Your task to perform on an android device: install app "Fetch Rewards" Image 0: 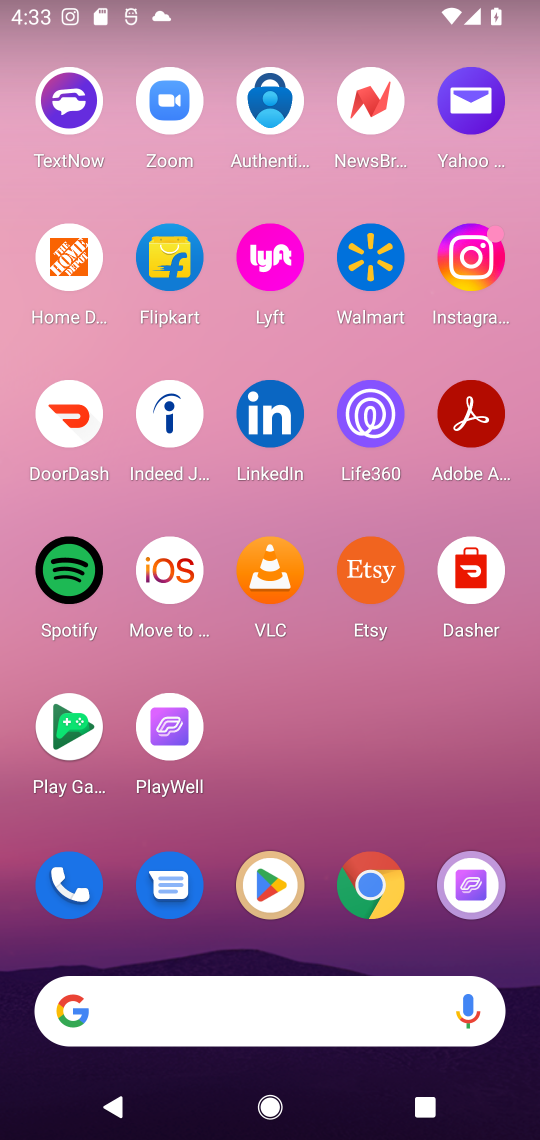
Step 0: click (266, 881)
Your task to perform on an android device: install app "Fetch Rewards" Image 1: 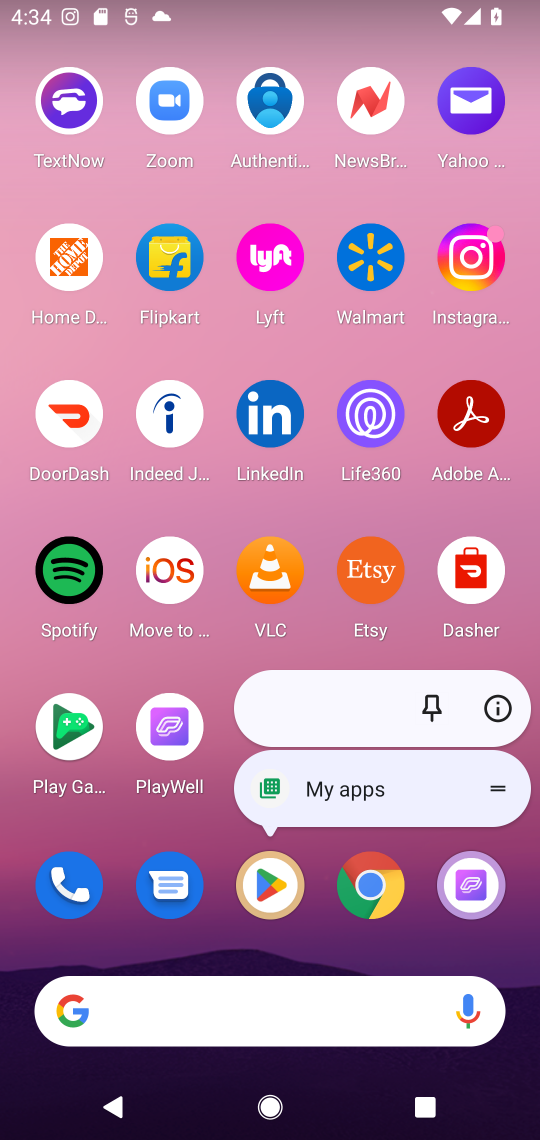
Step 1: click (269, 878)
Your task to perform on an android device: install app "Fetch Rewards" Image 2: 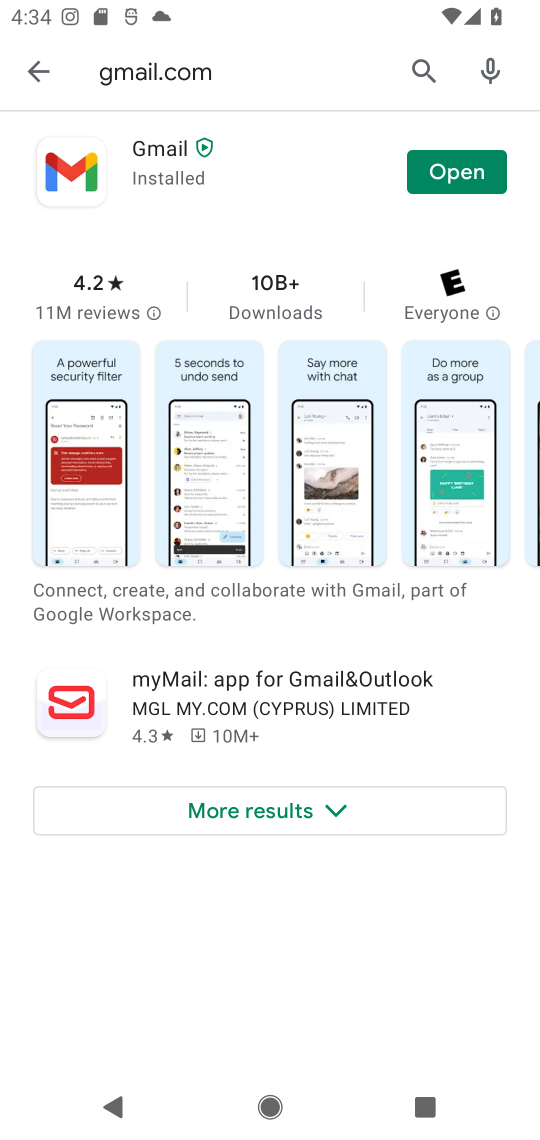
Step 2: click (421, 58)
Your task to perform on an android device: install app "Fetch Rewards" Image 3: 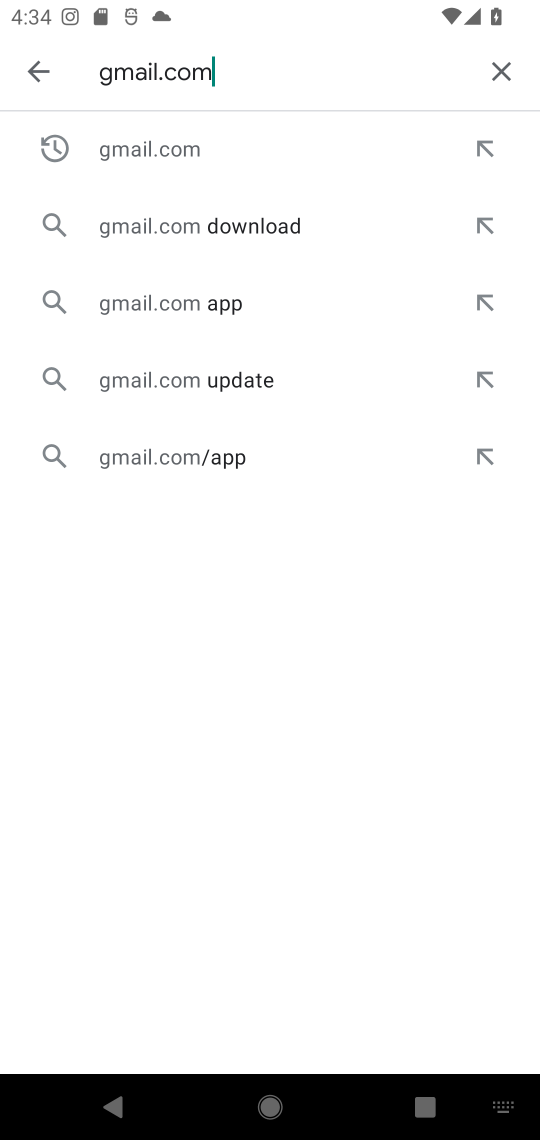
Step 3: click (498, 61)
Your task to perform on an android device: install app "Fetch Rewards" Image 4: 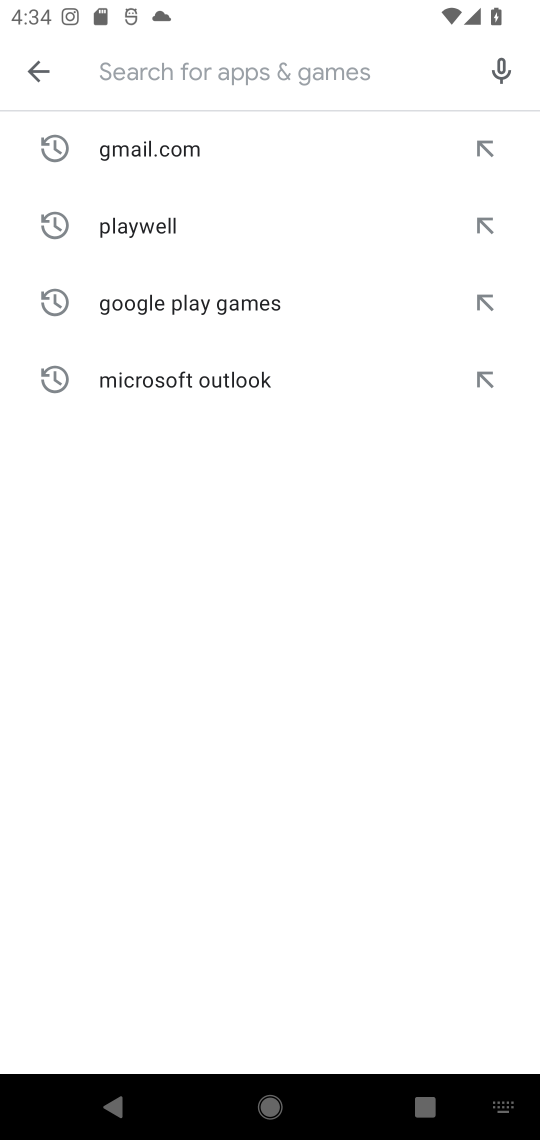
Step 4: type "Fetch Rewards"
Your task to perform on an android device: install app "Fetch Rewards" Image 5: 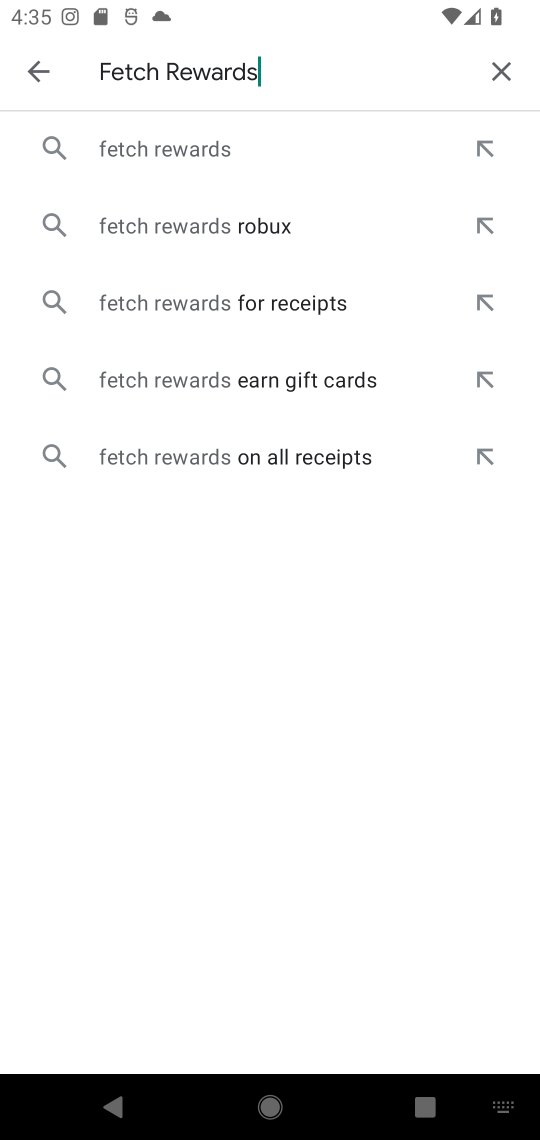
Step 5: click (200, 137)
Your task to perform on an android device: install app "Fetch Rewards" Image 6: 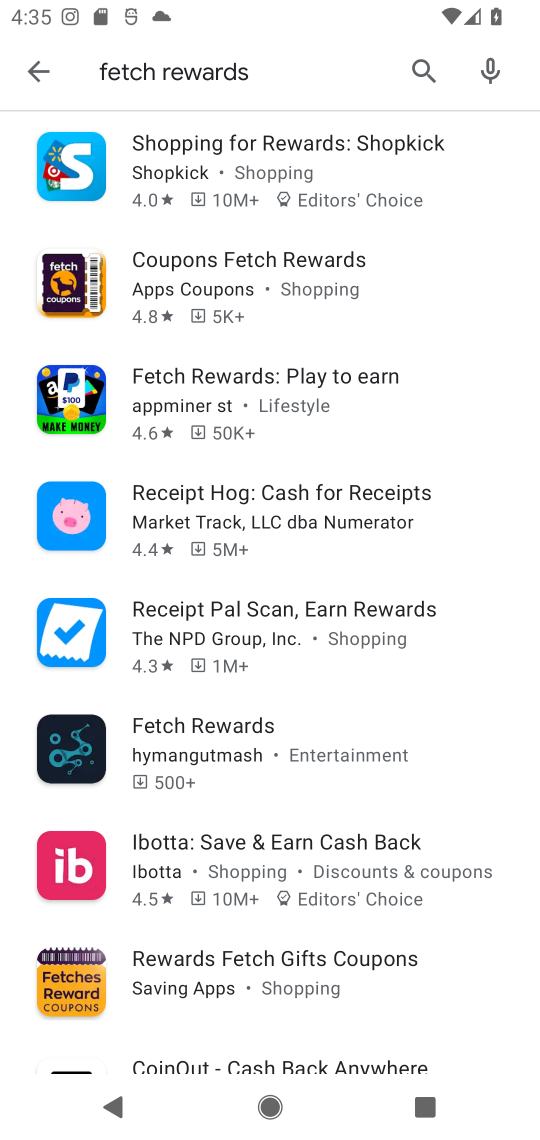
Step 6: task complete